Your task to perform on an android device: Clear all items from cart on newegg. Add razer nari to the cart on newegg, then select checkout. Image 0: 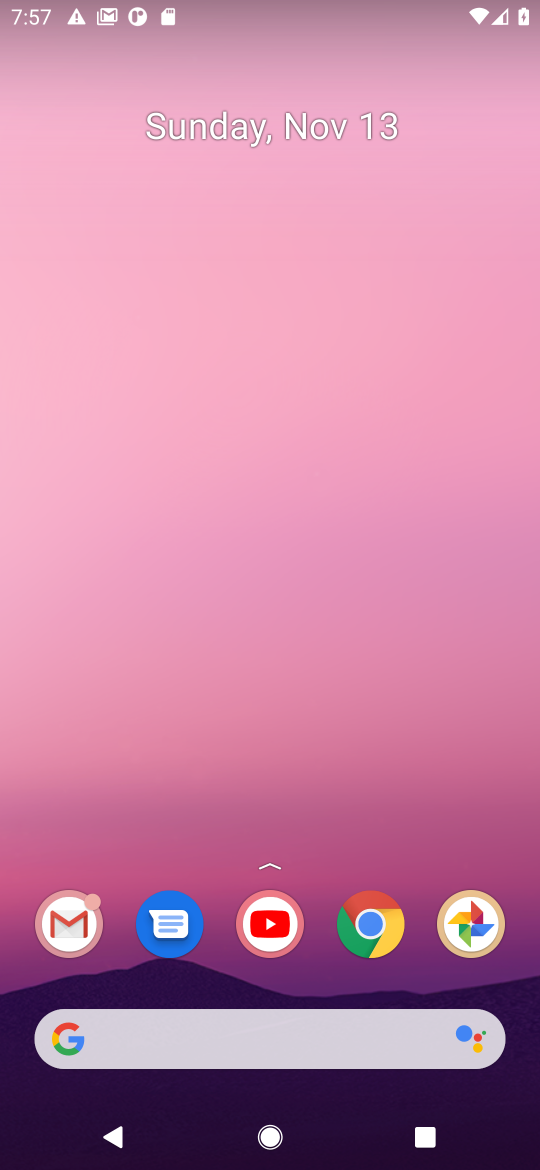
Step 0: click (379, 931)
Your task to perform on an android device: Clear all items from cart on newegg. Add razer nari to the cart on newegg, then select checkout. Image 1: 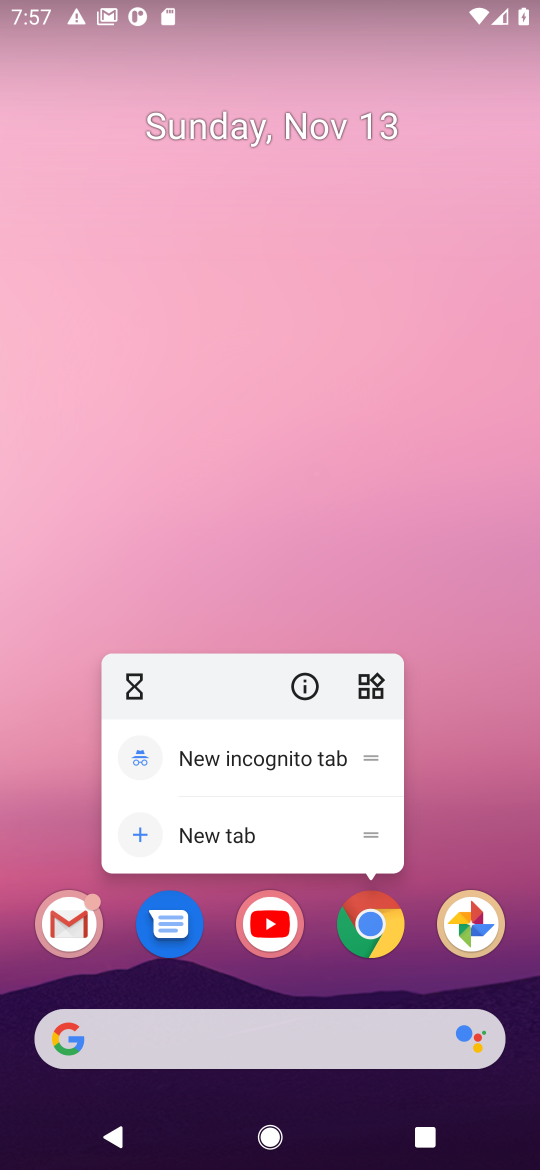
Step 1: click (371, 923)
Your task to perform on an android device: Clear all items from cart on newegg. Add razer nari to the cart on newegg, then select checkout. Image 2: 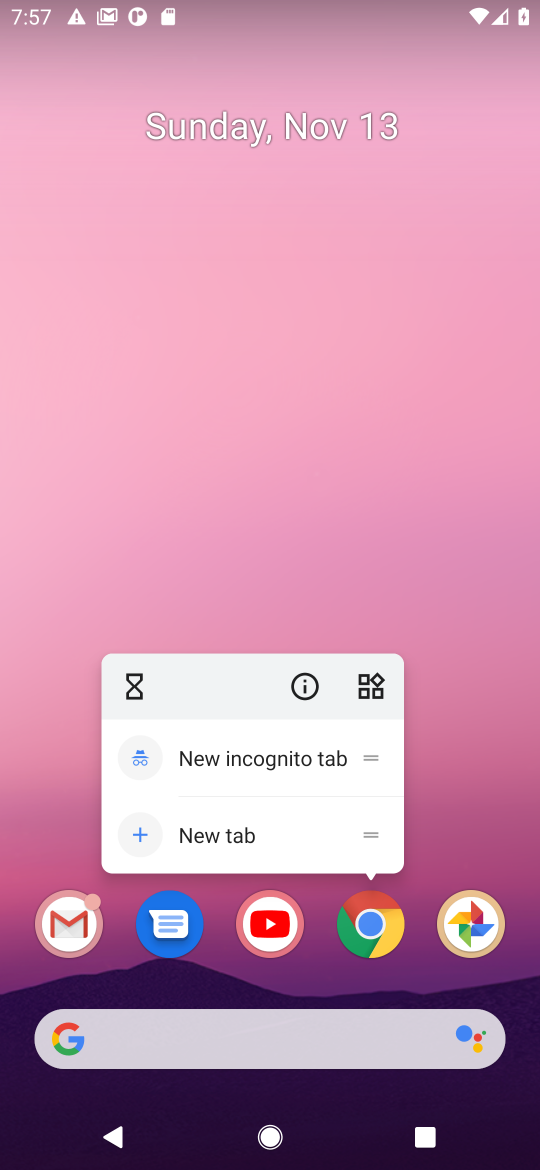
Step 2: click (386, 932)
Your task to perform on an android device: Clear all items from cart on newegg. Add razer nari to the cart on newegg, then select checkout. Image 3: 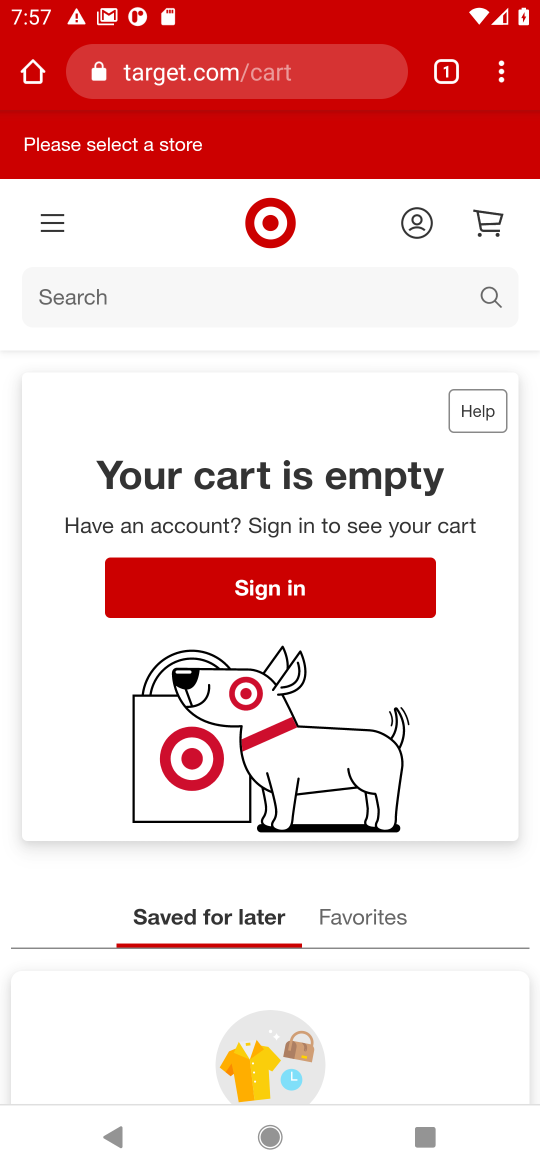
Step 3: click (279, 60)
Your task to perform on an android device: Clear all items from cart on newegg. Add razer nari to the cart on newegg, then select checkout. Image 4: 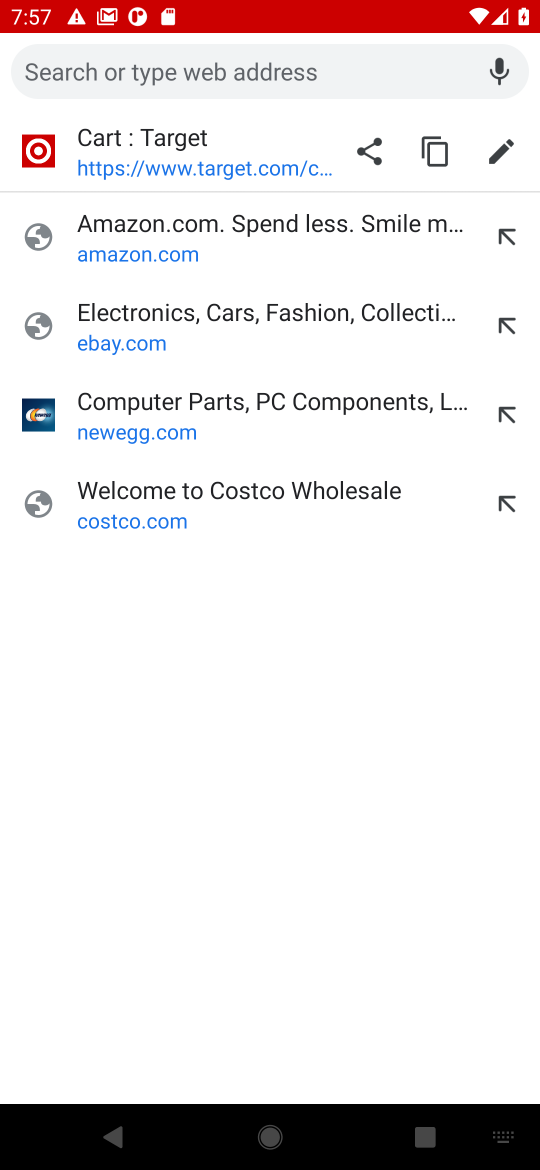
Step 4: click (161, 435)
Your task to perform on an android device: Clear all items from cart on newegg. Add razer nari to the cart on newegg, then select checkout. Image 5: 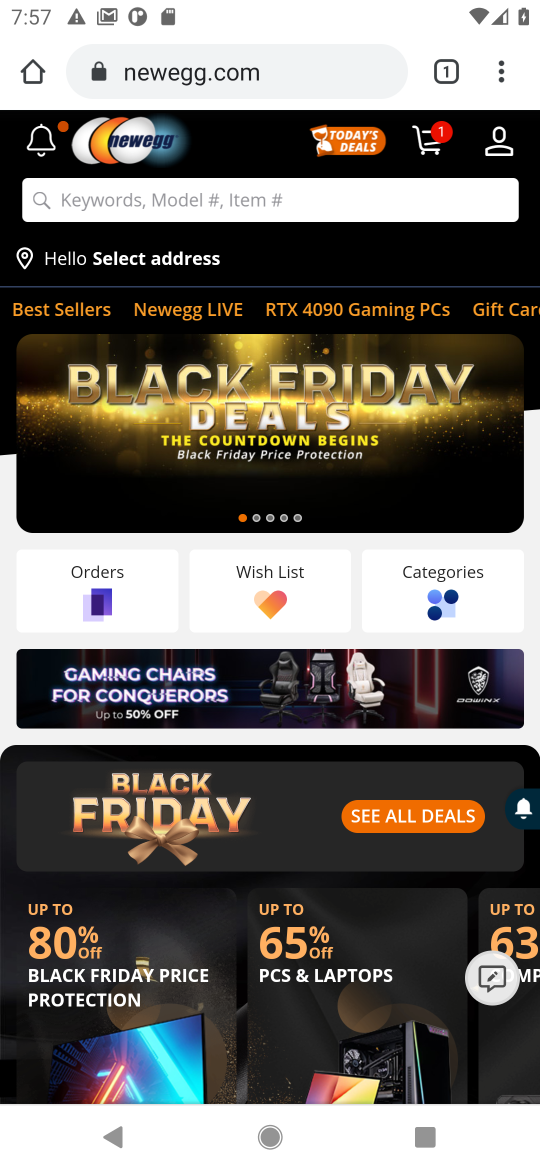
Step 5: click (435, 144)
Your task to perform on an android device: Clear all items from cart on newegg. Add razer nari to the cart on newegg, then select checkout. Image 6: 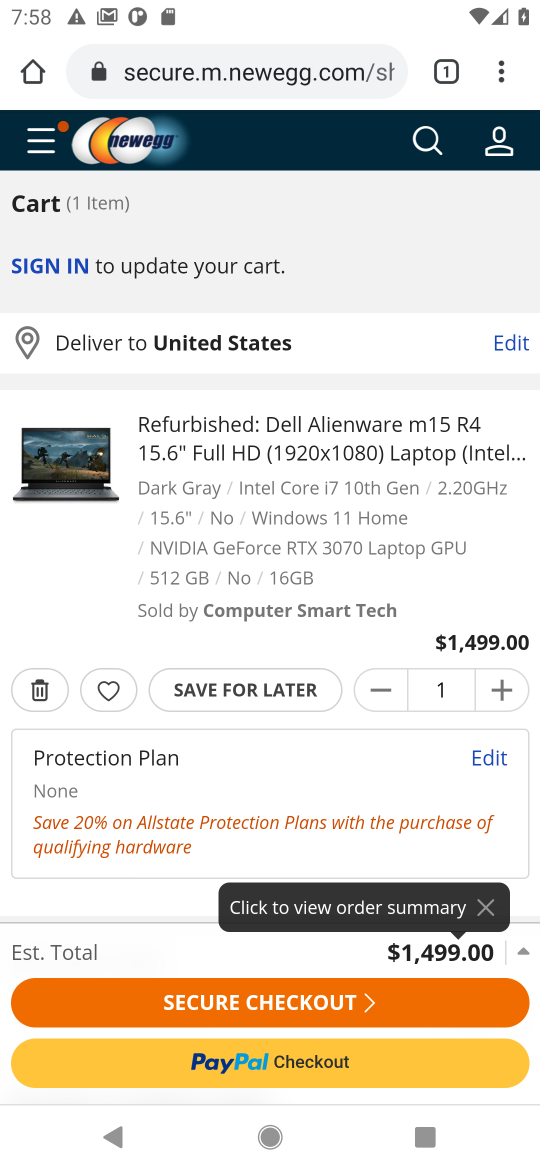
Step 6: click (36, 699)
Your task to perform on an android device: Clear all items from cart on newegg. Add razer nari to the cart on newegg, then select checkout. Image 7: 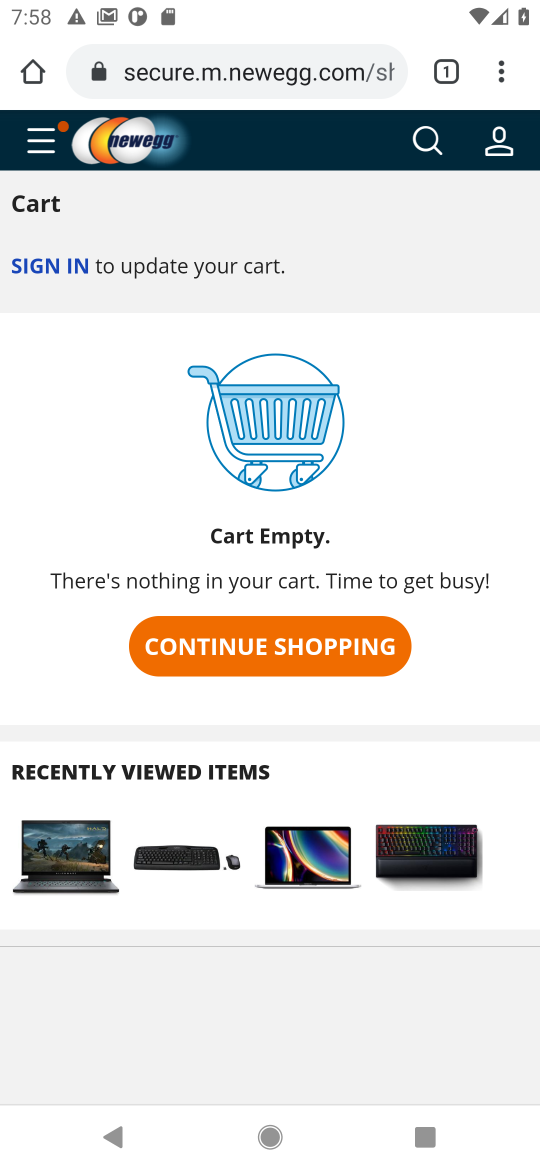
Step 7: click (258, 653)
Your task to perform on an android device: Clear all items from cart on newegg. Add razer nari to the cart on newegg, then select checkout. Image 8: 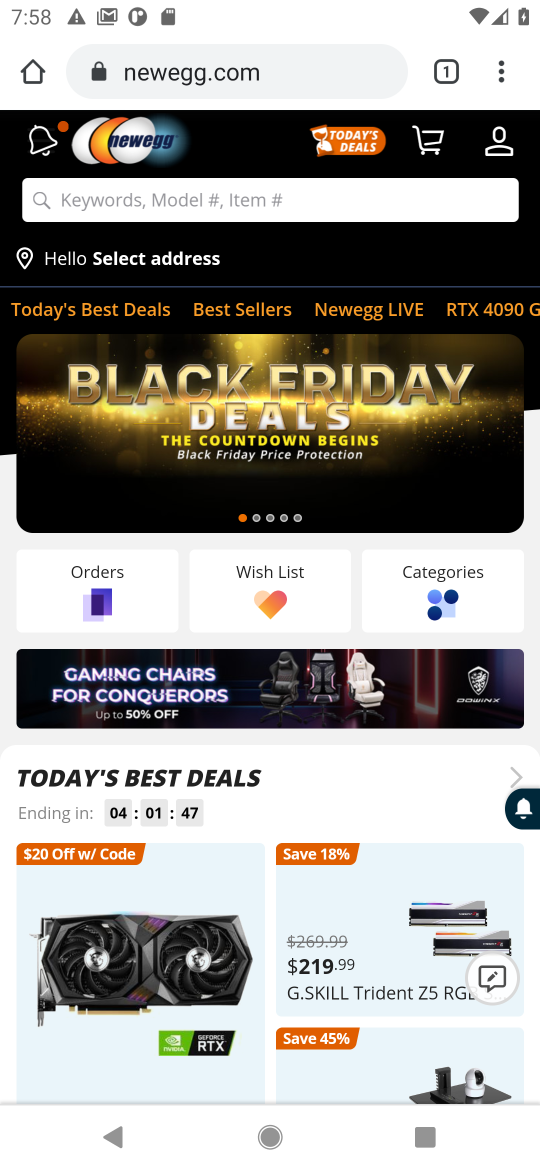
Step 8: click (284, 185)
Your task to perform on an android device: Clear all items from cart on newegg. Add razer nari to the cart on newegg, then select checkout. Image 9: 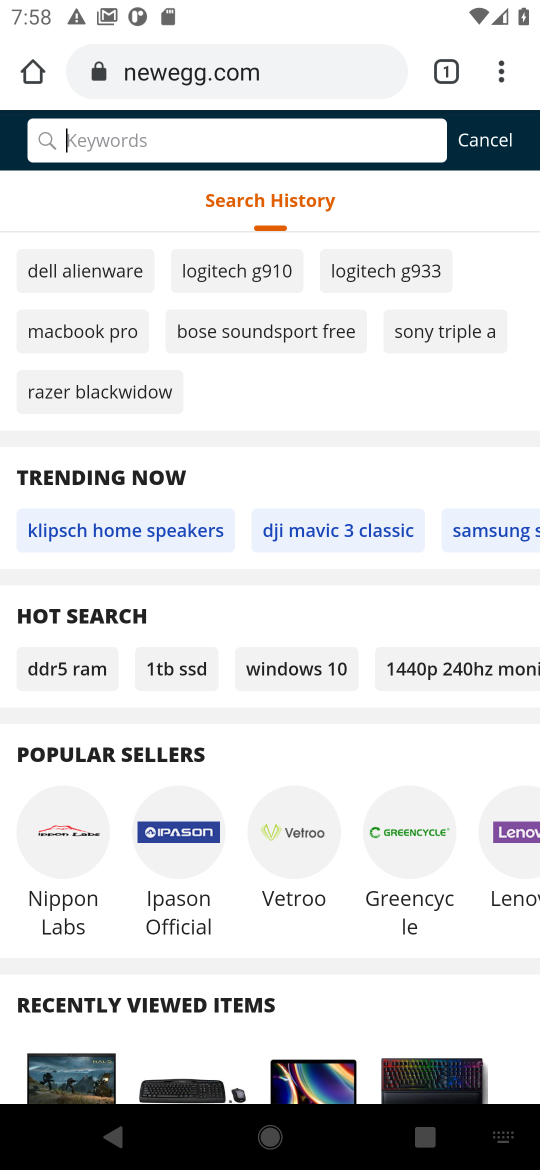
Step 9: type "razer nari"
Your task to perform on an android device: Clear all items from cart on newegg. Add razer nari to the cart on newegg, then select checkout. Image 10: 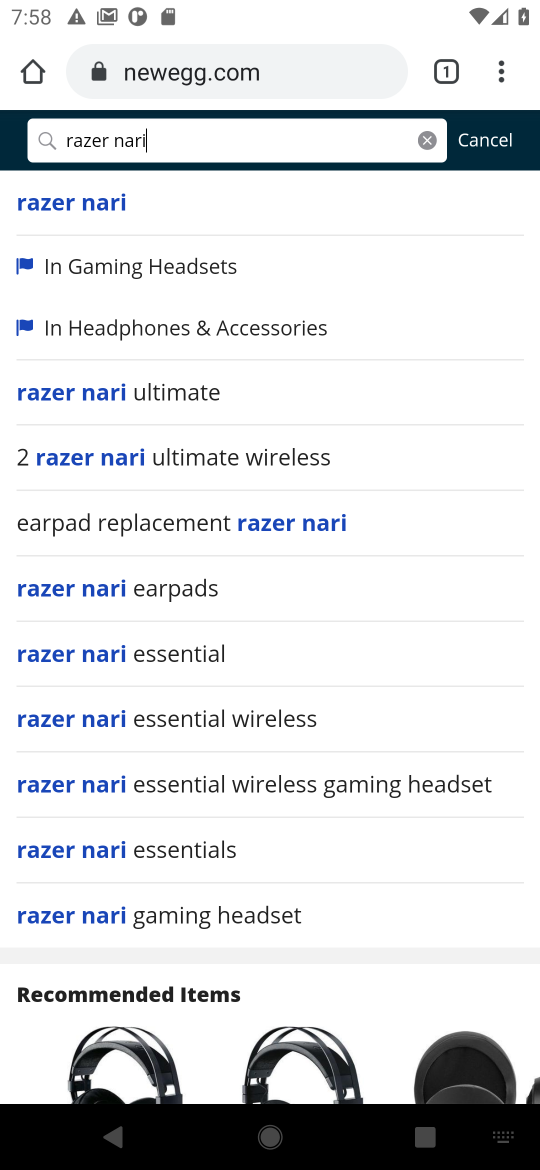
Step 10: click (108, 210)
Your task to perform on an android device: Clear all items from cart on newegg. Add razer nari to the cart on newegg, then select checkout. Image 11: 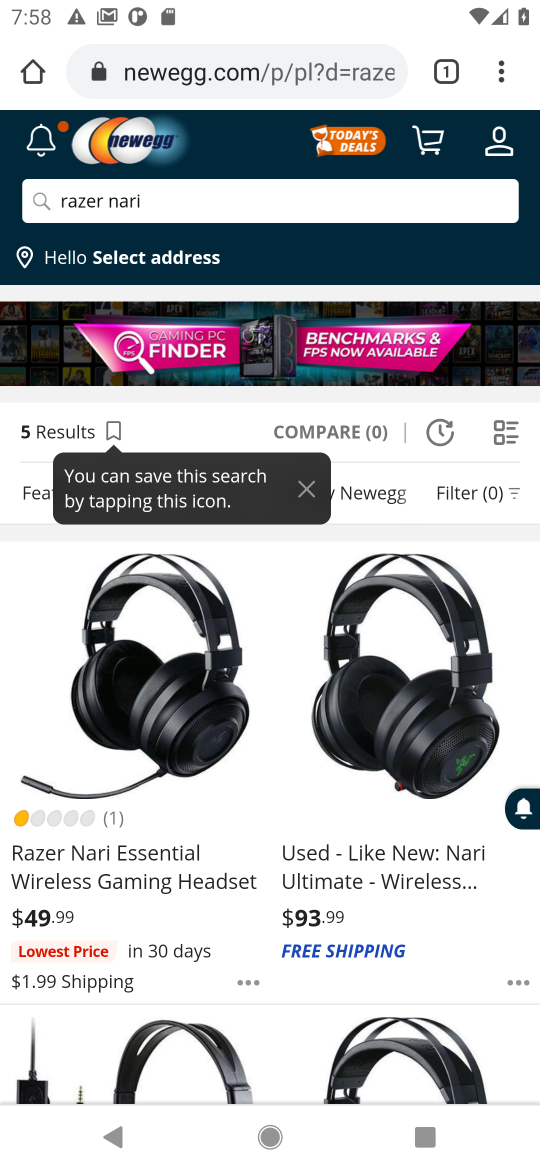
Step 11: click (84, 708)
Your task to perform on an android device: Clear all items from cart on newegg. Add razer nari to the cart on newegg, then select checkout. Image 12: 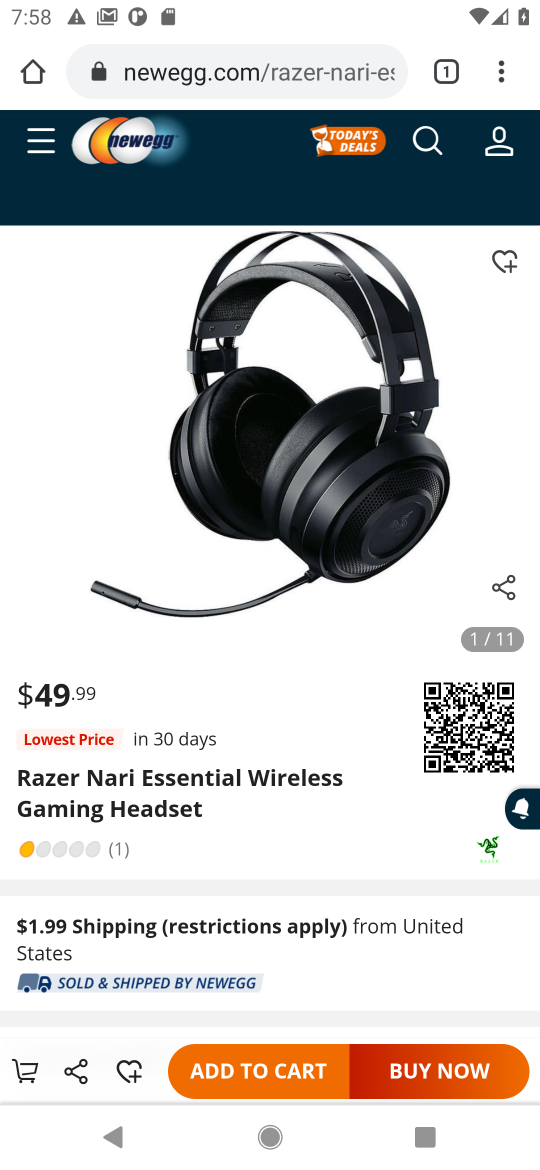
Step 12: click (199, 1054)
Your task to perform on an android device: Clear all items from cart on newegg. Add razer nari to the cart on newegg, then select checkout. Image 13: 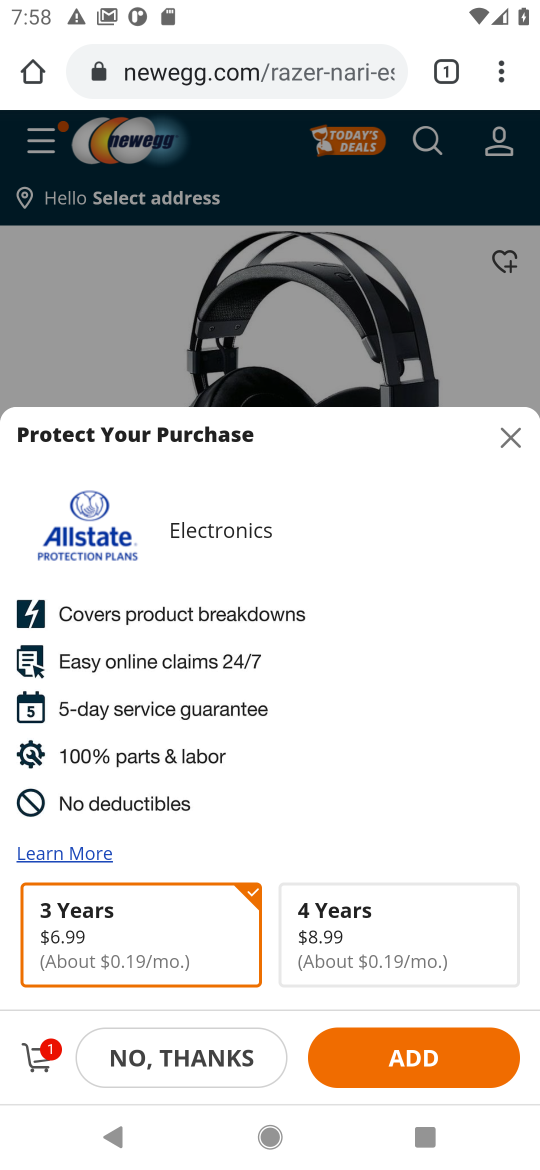
Step 13: click (33, 1052)
Your task to perform on an android device: Clear all items from cart on newegg. Add razer nari to the cart on newegg, then select checkout. Image 14: 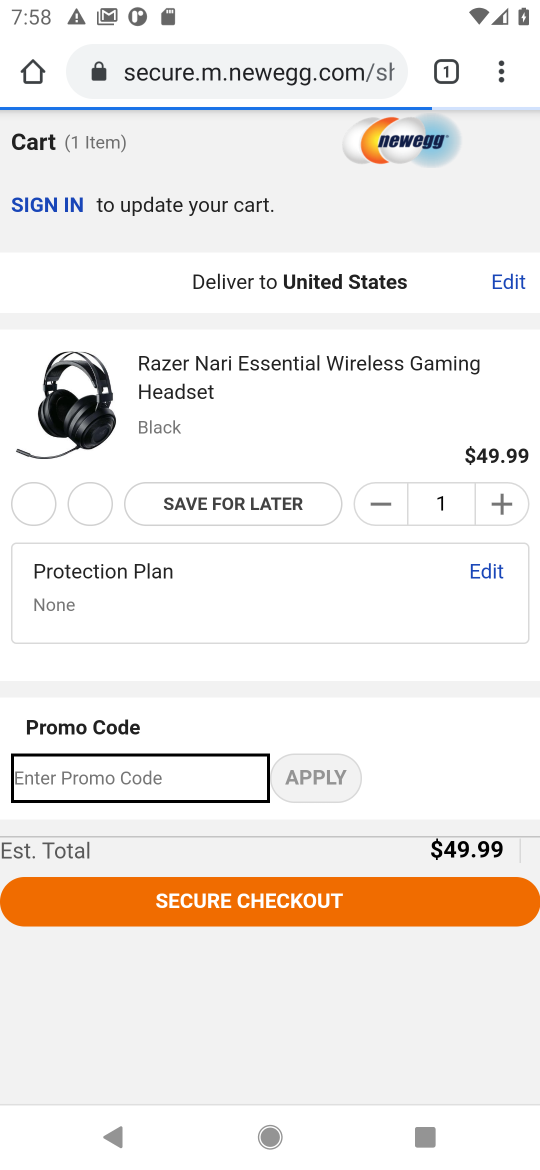
Step 14: click (189, 904)
Your task to perform on an android device: Clear all items from cart on newegg. Add razer nari to the cart on newegg, then select checkout. Image 15: 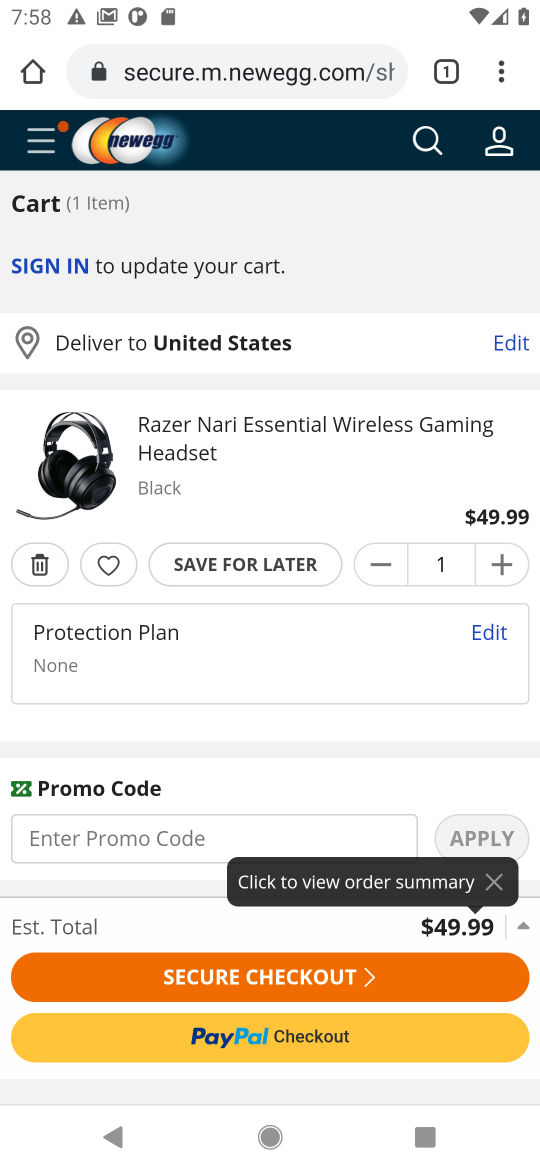
Step 15: click (352, 975)
Your task to perform on an android device: Clear all items from cart on newegg. Add razer nari to the cart on newegg, then select checkout. Image 16: 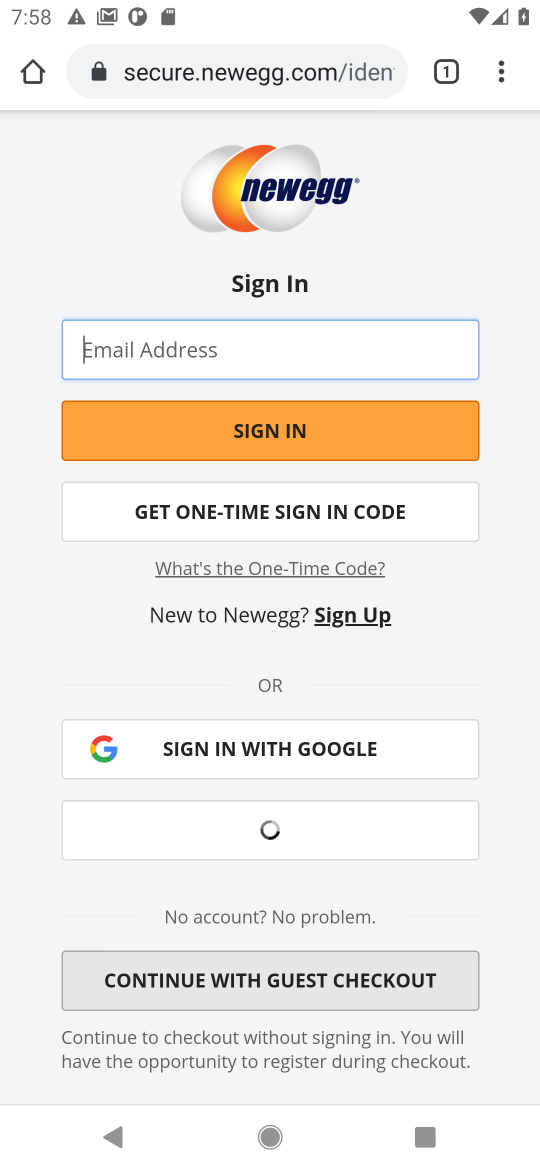
Step 16: task complete